Your task to perform on an android device: Open Youtube and go to the subscriptions tab Image 0: 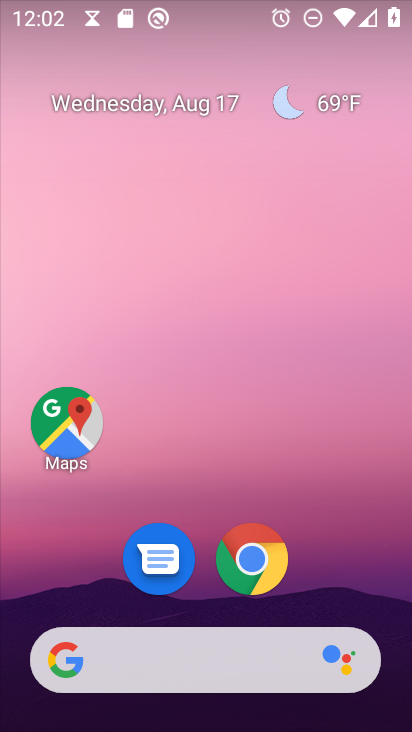
Step 0: drag from (167, 693) to (115, 182)
Your task to perform on an android device: Open Youtube and go to the subscriptions tab Image 1: 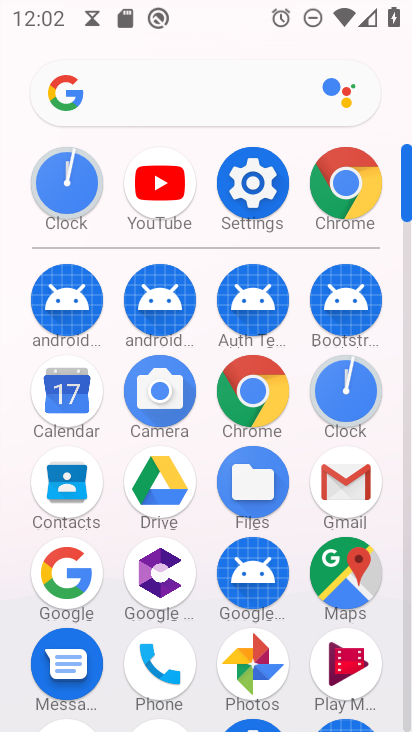
Step 1: click (158, 186)
Your task to perform on an android device: Open Youtube and go to the subscriptions tab Image 2: 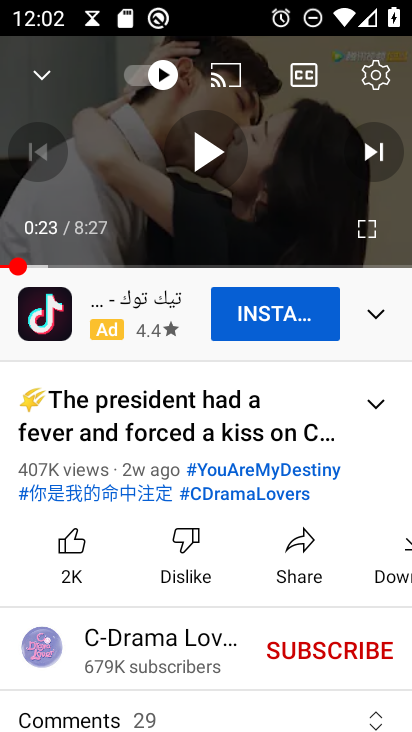
Step 2: press back button
Your task to perform on an android device: Open Youtube and go to the subscriptions tab Image 3: 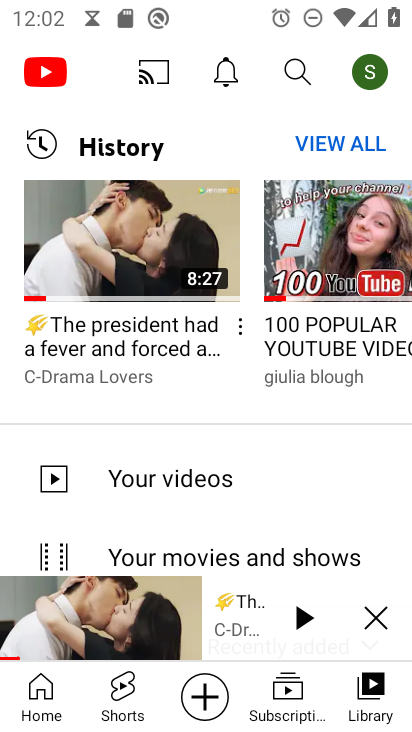
Step 3: click (287, 687)
Your task to perform on an android device: Open Youtube and go to the subscriptions tab Image 4: 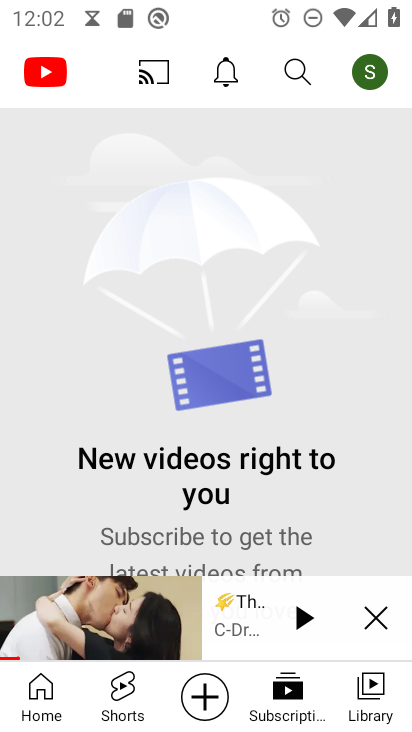
Step 4: click (369, 625)
Your task to perform on an android device: Open Youtube and go to the subscriptions tab Image 5: 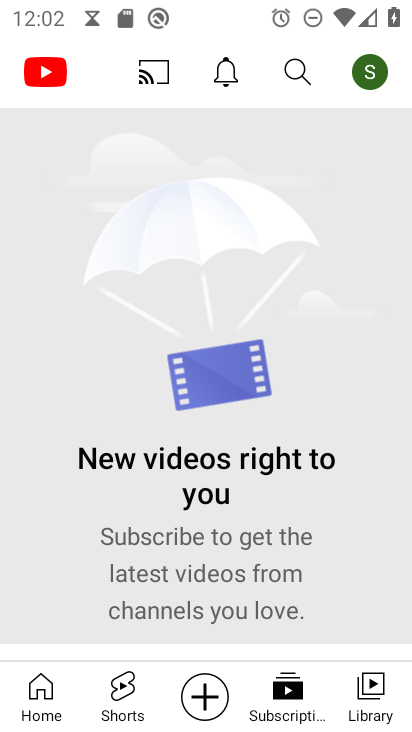
Step 5: task complete